Your task to perform on an android device: Search for logitech g pro on newegg.com, select the first entry, add it to the cart, then select checkout. Image 0: 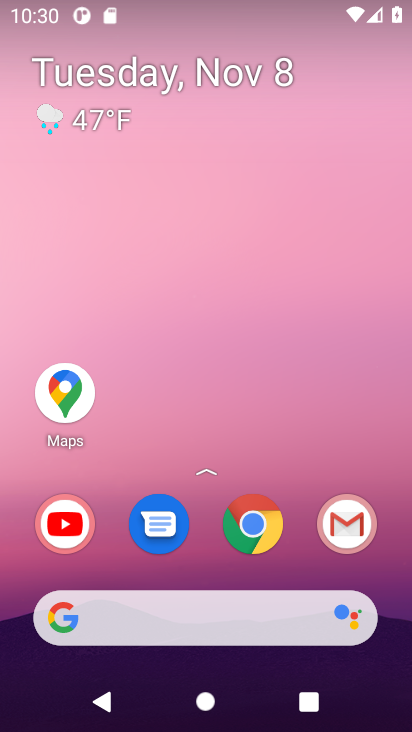
Step 0: click (267, 535)
Your task to perform on an android device: Search for logitech g pro on newegg.com, select the first entry, add it to the cart, then select checkout. Image 1: 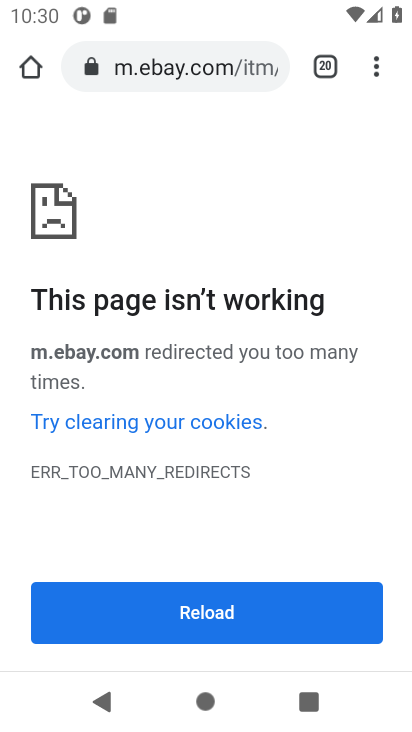
Step 1: click (180, 70)
Your task to perform on an android device: Search for logitech g pro on newegg.com, select the first entry, add it to the cart, then select checkout. Image 2: 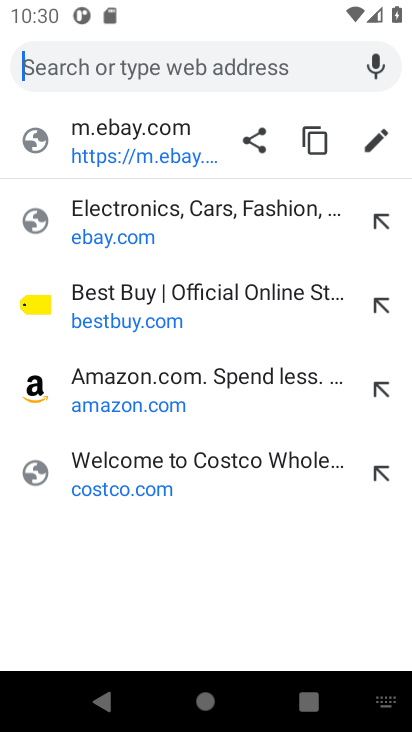
Step 2: type "newegg.com"
Your task to perform on an android device: Search for logitech g pro on newegg.com, select the first entry, add it to the cart, then select checkout. Image 3: 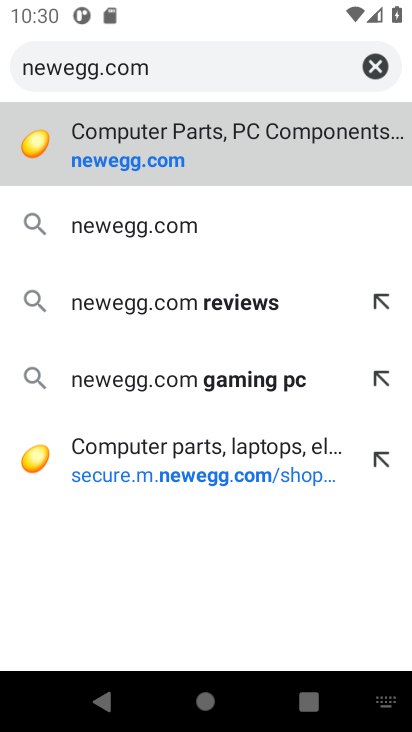
Step 3: click (172, 159)
Your task to perform on an android device: Search for logitech g pro on newegg.com, select the first entry, add it to the cart, then select checkout. Image 4: 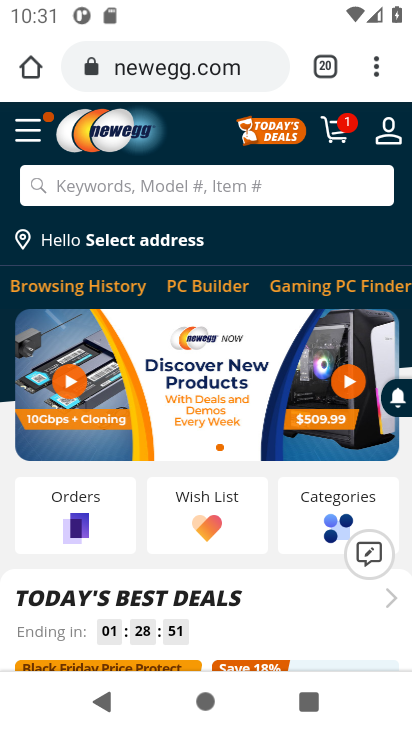
Step 4: click (145, 186)
Your task to perform on an android device: Search for logitech g pro on newegg.com, select the first entry, add it to the cart, then select checkout. Image 5: 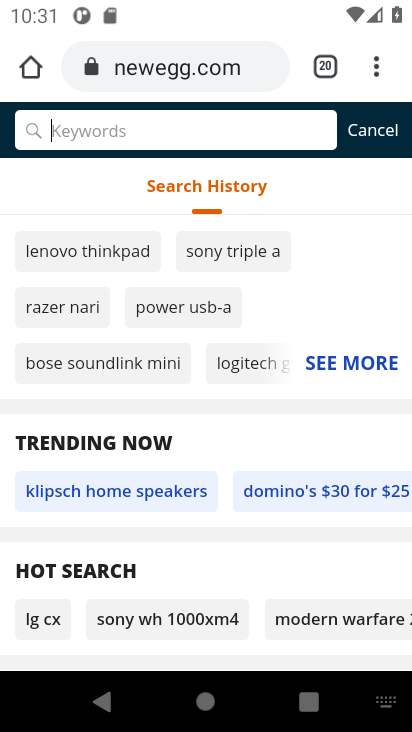
Step 5: type "logitech g pro"
Your task to perform on an android device: Search for logitech g pro on newegg.com, select the first entry, add it to the cart, then select checkout. Image 6: 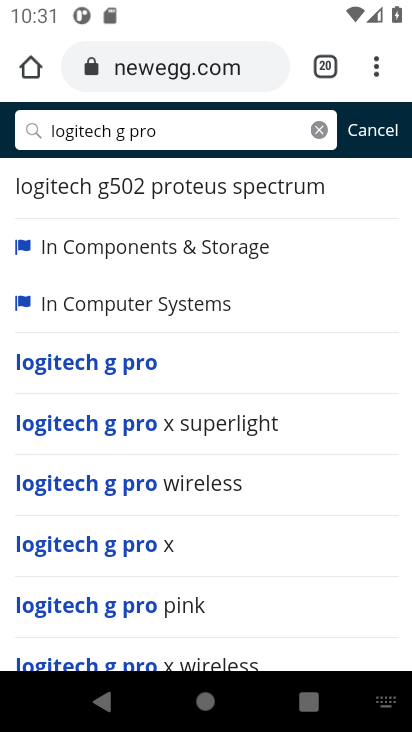
Step 6: click (104, 369)
Your task to perform on an android device: Search for logitech g pro on newegg.com, select the first entry, add it to the cart, then select checkout. Image 7: 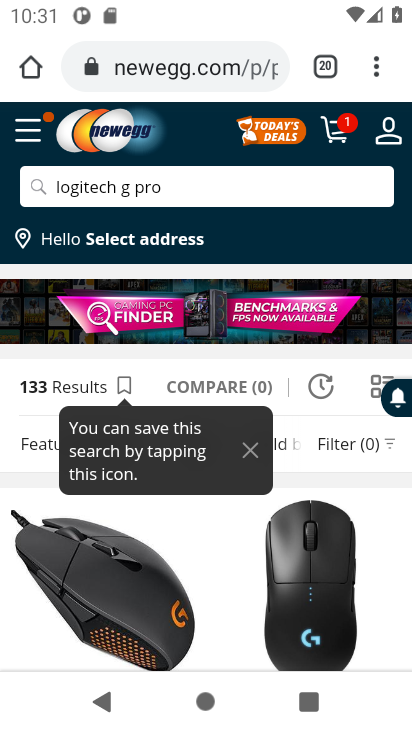
Step 7: drag from (163, 545) to (143, 307)
Your task to perform on an android device: Search for logitech g pro on newegg.com, select the first entry, add it to the cart, then select checkout. Image 8: 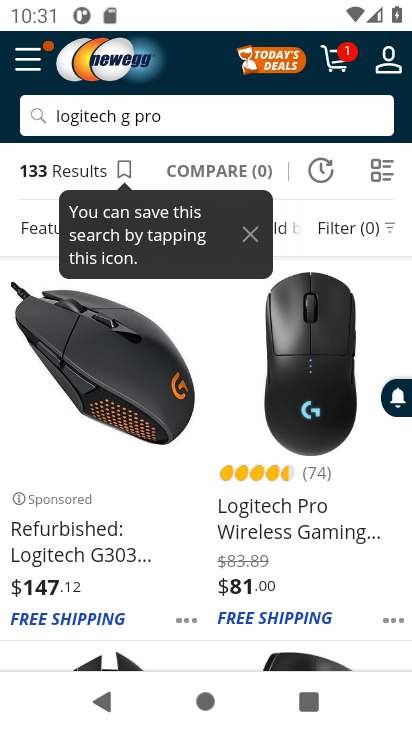
Step 8: click (147, 509)
Your task to perform on an android device: Search for logitech g pro on newegg.com, select the first entry, add it to the cart, then select checkout. Image 9: 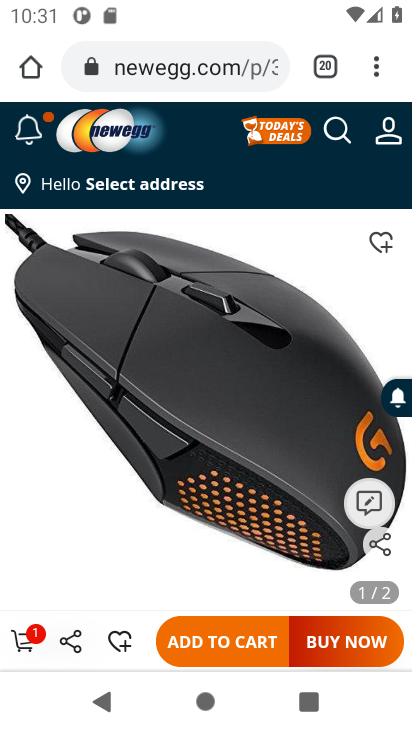
Step 9: task complete